Your task to perform on an android device: change alarm snooze length Image 0: 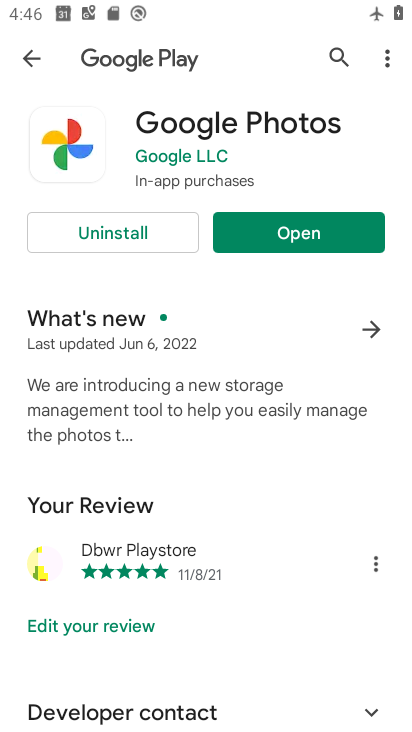
Step 0: press home button
Your task to perform on an android device: change alarm snooze length Image 1: 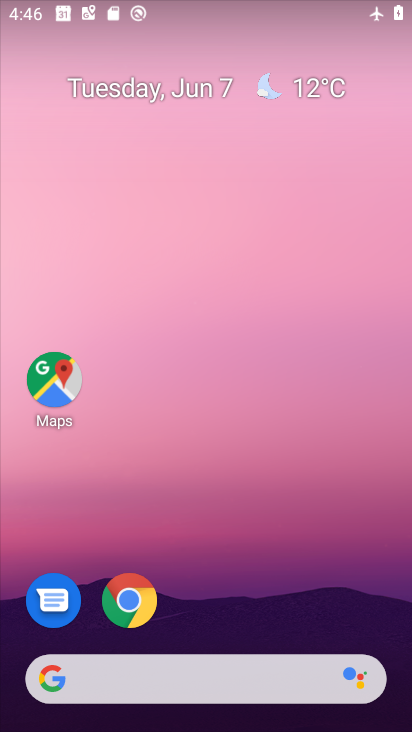
Step 1: drag from (241, 634) to (261, 274)
Your task to perform on an android device: change alarm snooze length Image 2: 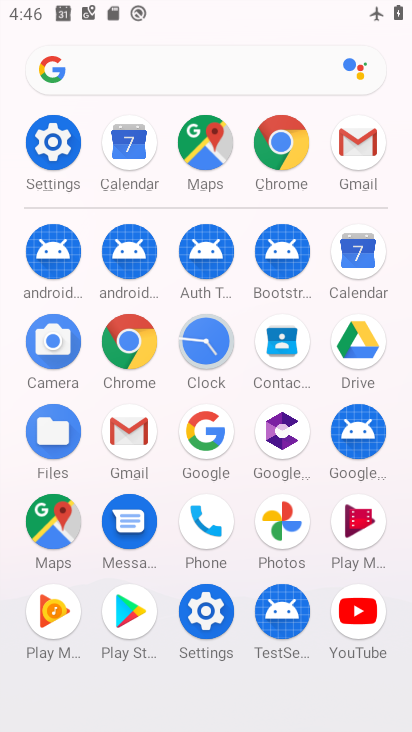
Step 2: click (207, 345)
Your task to perform on an android device: change alarm snooze length Image 3: 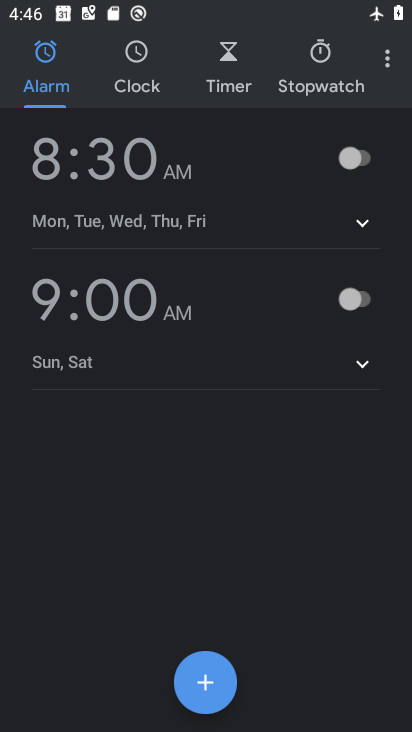
Step 3: click (390, 60)
Your task to perform on an android device: change alarm snooze length Image 4: 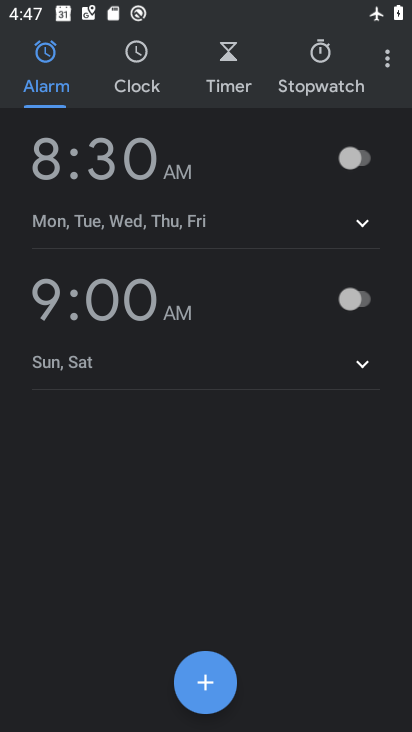
Step 4: drag from (386, 47) to (297, 117)
Your task to perform on an android device: change alarm snooze length Image 5: 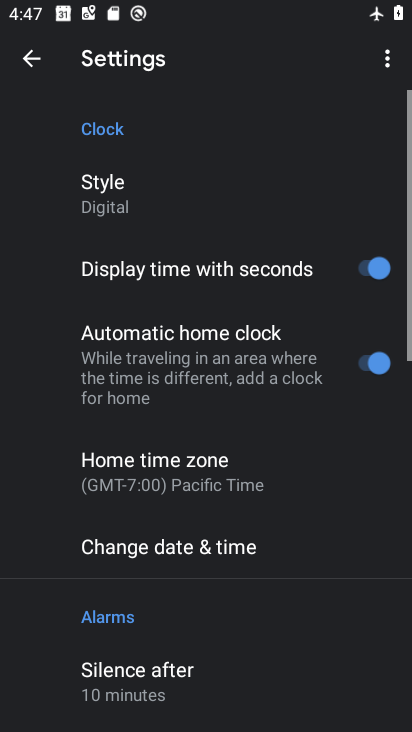
Step 5: drag from (74, 571) to (163, 110)
Your task to perform on an android device: change alarm snooze length Image 6: 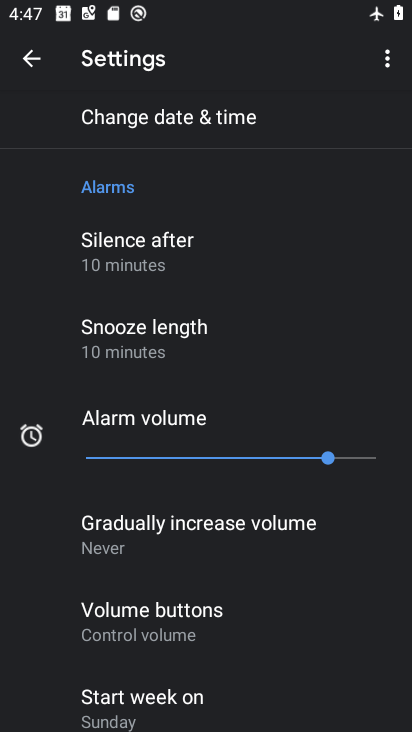
Step 6: click (162, 356)
Your task to perform on an android device: change alarm snooze length Image 7: 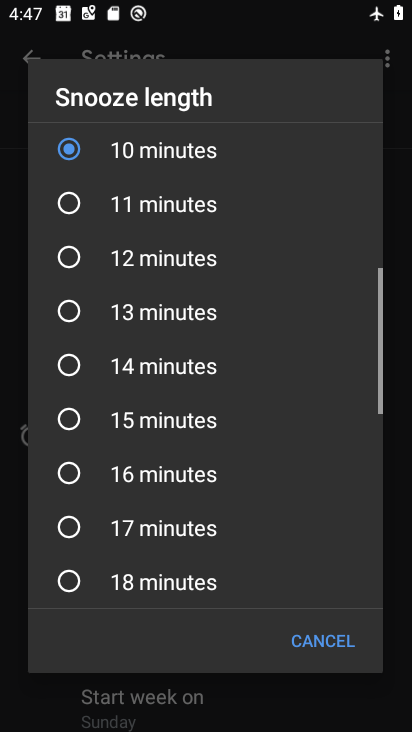
Step 7: click (193, 202)
Your task to perform on an android device: change alarm snooze length Image 8: 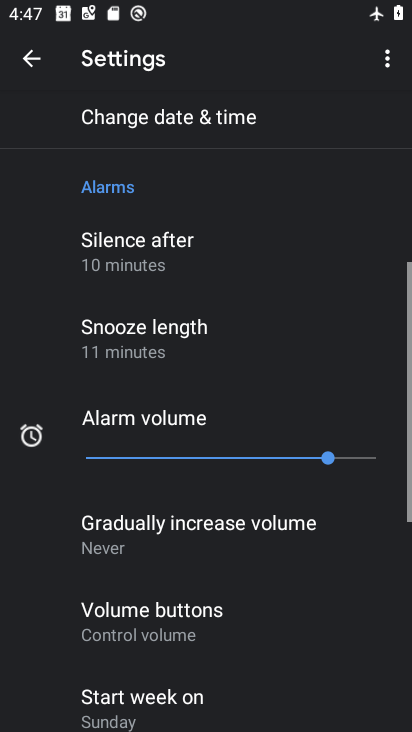
Step 8: task complete